Your task to perform on an android device: open chrome and create a bookmark for the current page Image 0: 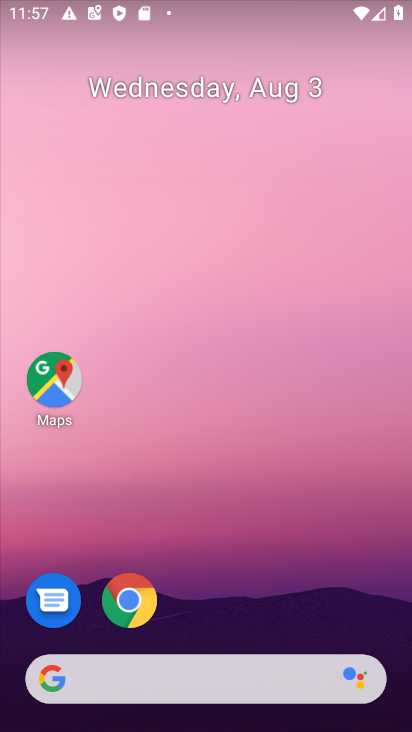
Step 0: click (124, 606)
Your task to perform on an android device: open chrome and create a bookmark for the current page Image 1: 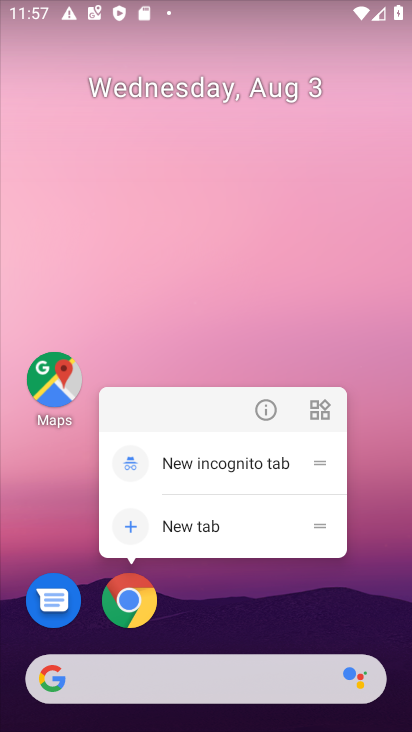
Step 1: click (130, 601)
Your task to perform on an android device: open chrome and create a bookmark for the current page Image 2: 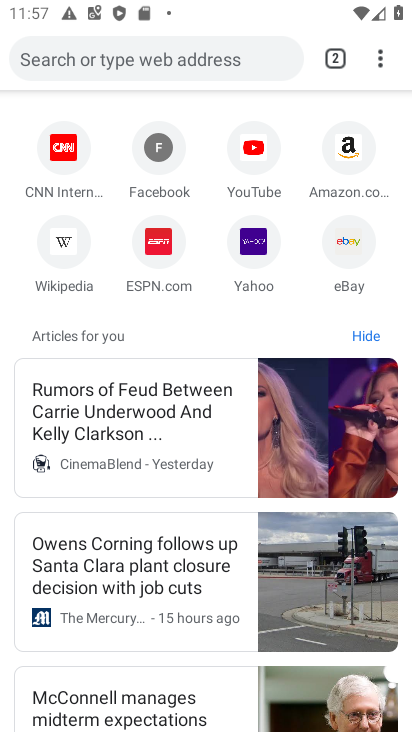
Step 2: click (378, 79)
Your task to perform on an android device: open chrome and create a bookmark for the current page Image 3: 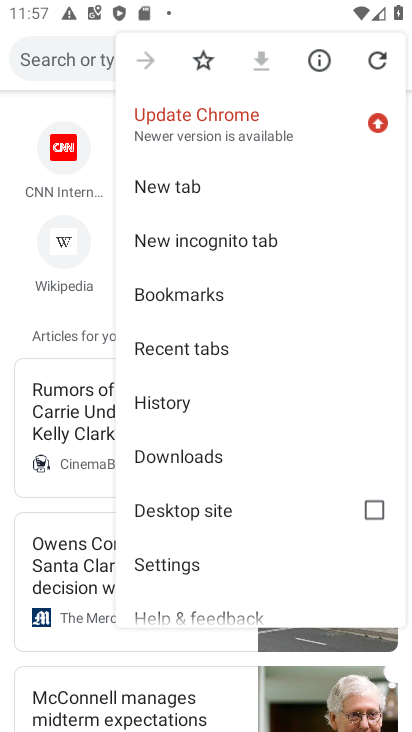
Step 3: click (205, 60)
Your task to perform on an android device: open chrome and create a bookmark for the current page Image 4: 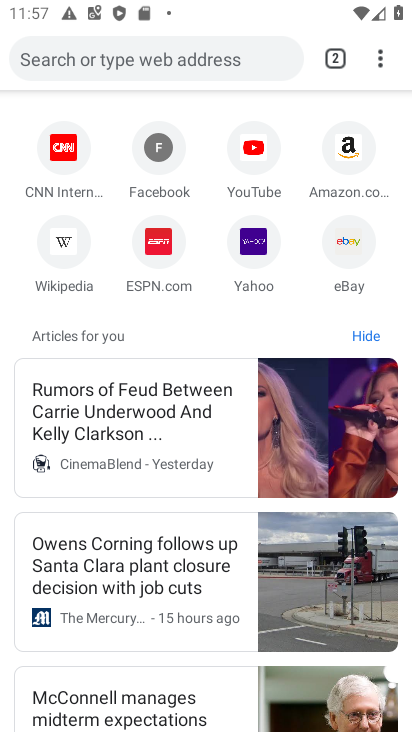
Step 4: task complete